Your task to perform on an android device: Go to notification settings Image 0: 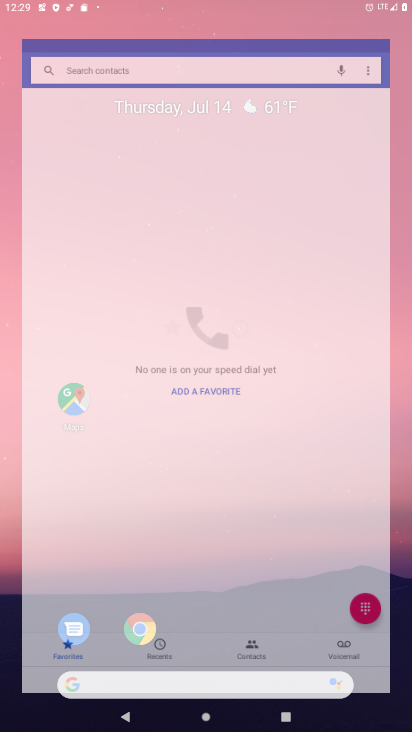
Step 0: drag from (212, 552) to (159, 125)
Your task to perform on an android device: Go to notification settings Image 1: 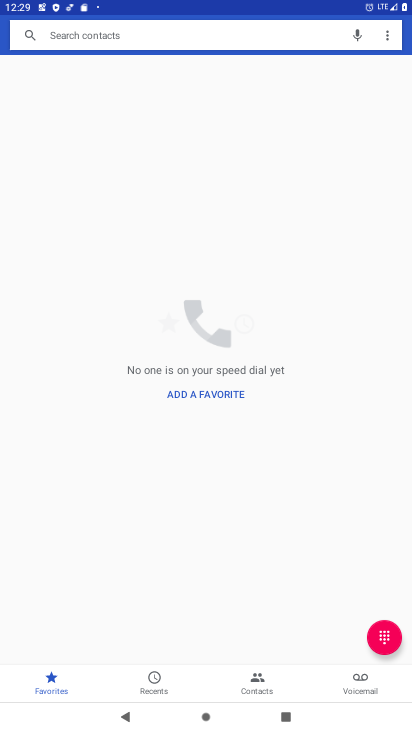
Step 1: press home button
Your task to perform on an android device: Go to notification settings Image 2: 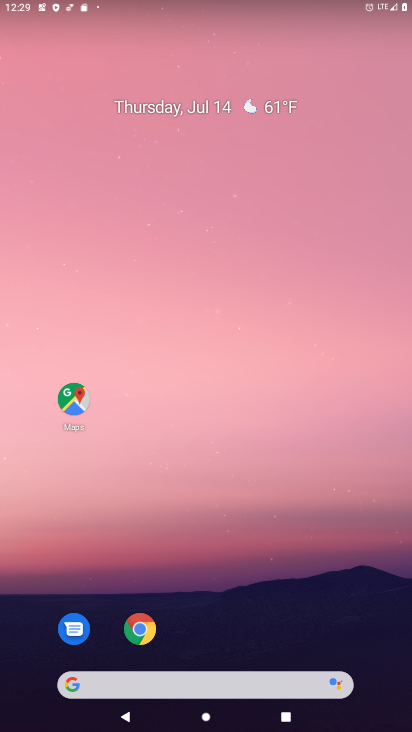
Step 2: drag from (232, 599) to (230, 73)
Your task to perform on an android device: Go to notification settings Image 3: 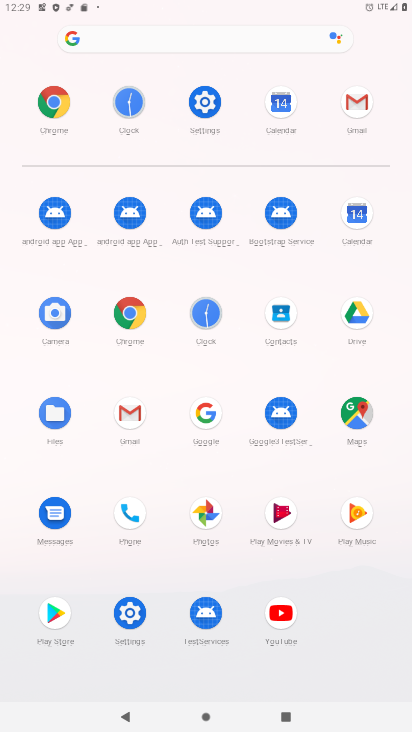
Step 3: click (202, 106)
Your task to perform on an android device: Go to notification settings Image 4: 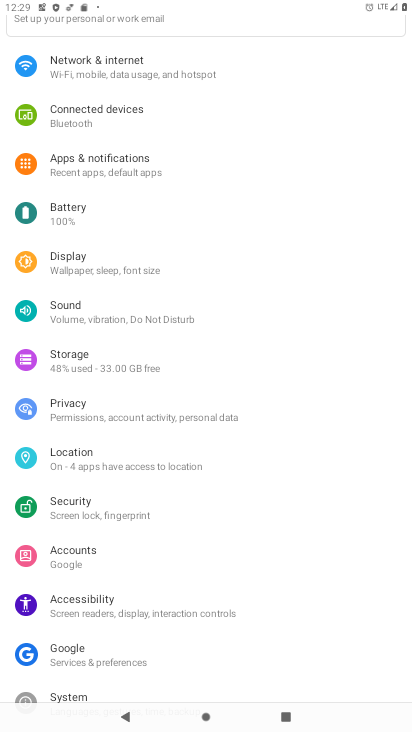
Step 4: click (107, 163)
Your task to perform on an android device: Go to notification settings Image 5: 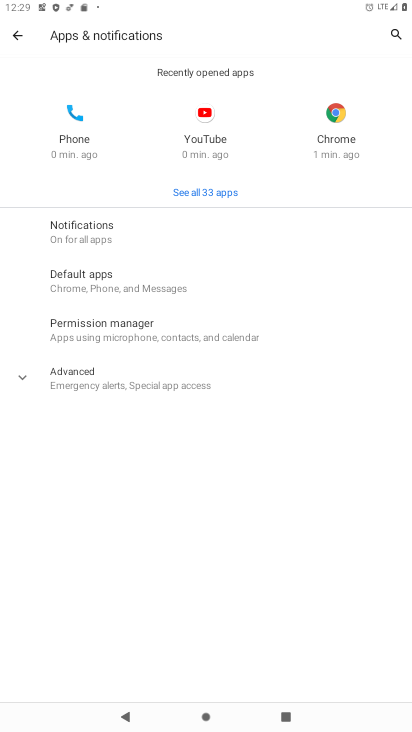
Step 5: task complete